Your task to perform on an android device: see tabs open on other devices in the chrome app Image 0: 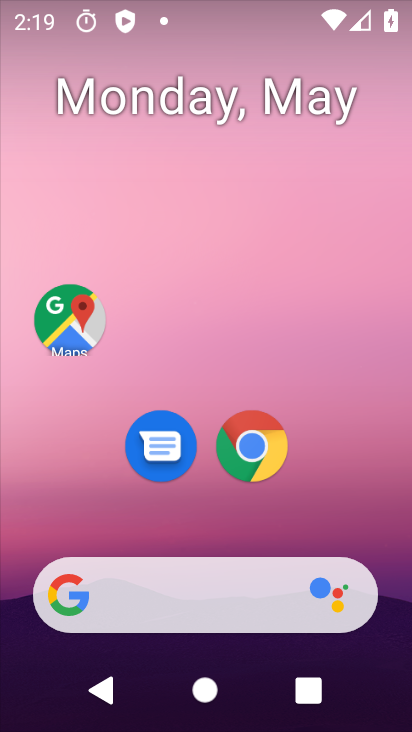
Step 0: click (158, 412)
Your task to perform on an android device: see tabs open on other devices in the chrome app Image 1: 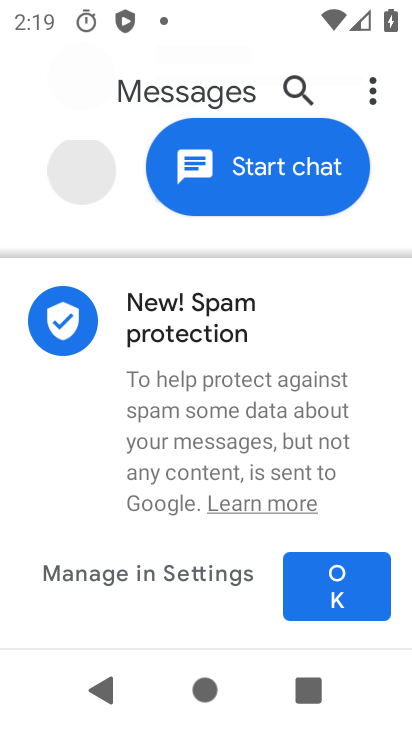
Step 1: press home button
Your task to perform on an android device: see tabs open on other devices in the chrome app Image 2: 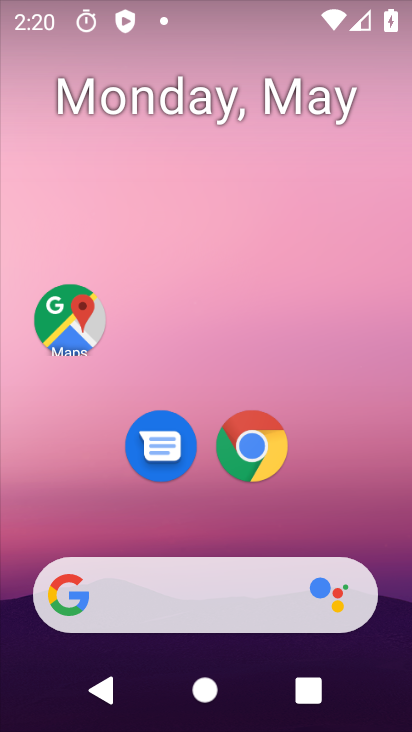
Step 2: drag from (225, 577) to (202, 54)
Your task to perform on an android device: see tabs open on other devices in the chrome app Image 3: 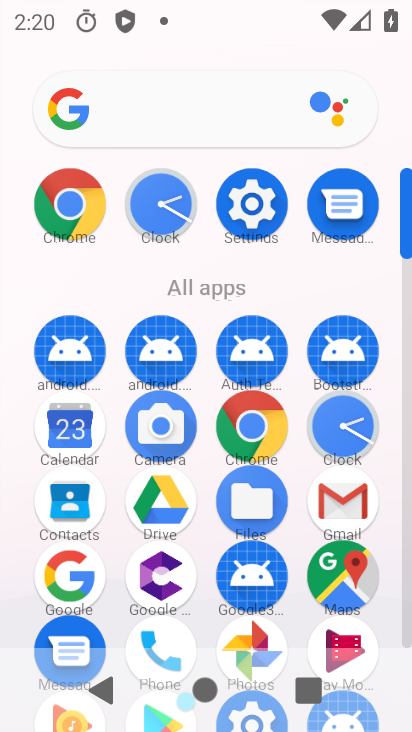
Step 3: click (260, 425)
Your task to perform on an android device: see tabs open on other devices in the chrome app Image 4: 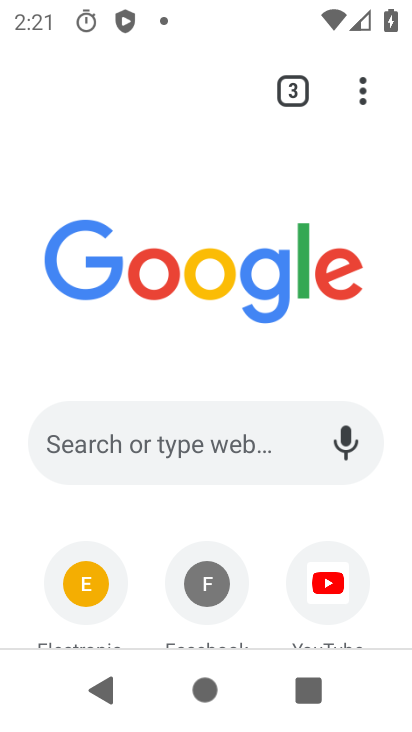
Step 4: task complete